Your task to perform on an android device: What's the news in Sri Lanka? Image 0: 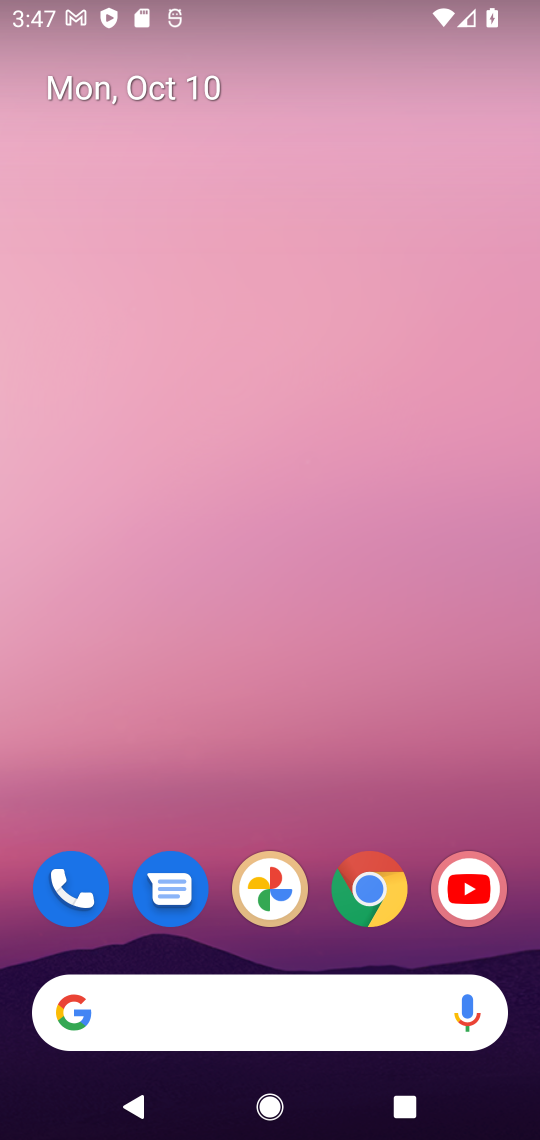
Step 0: click (370, 887)
Your task to perform on an android device: What's the news in Sri Lanka? Image 1: 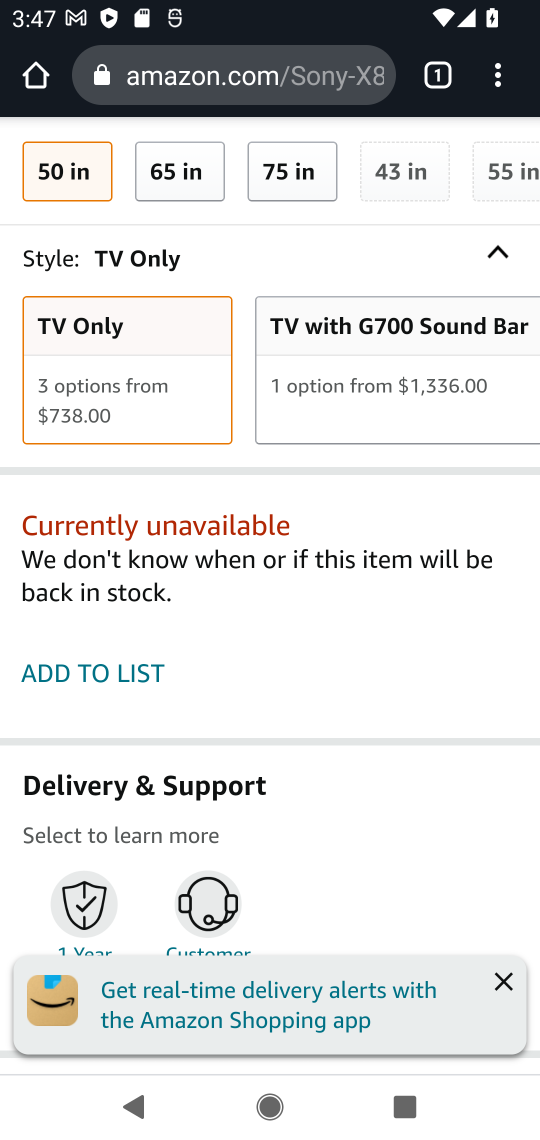
Step 1: click (270, 53)
Your task to perform on an android device: What's the news in Sri Lanka? Image 2: 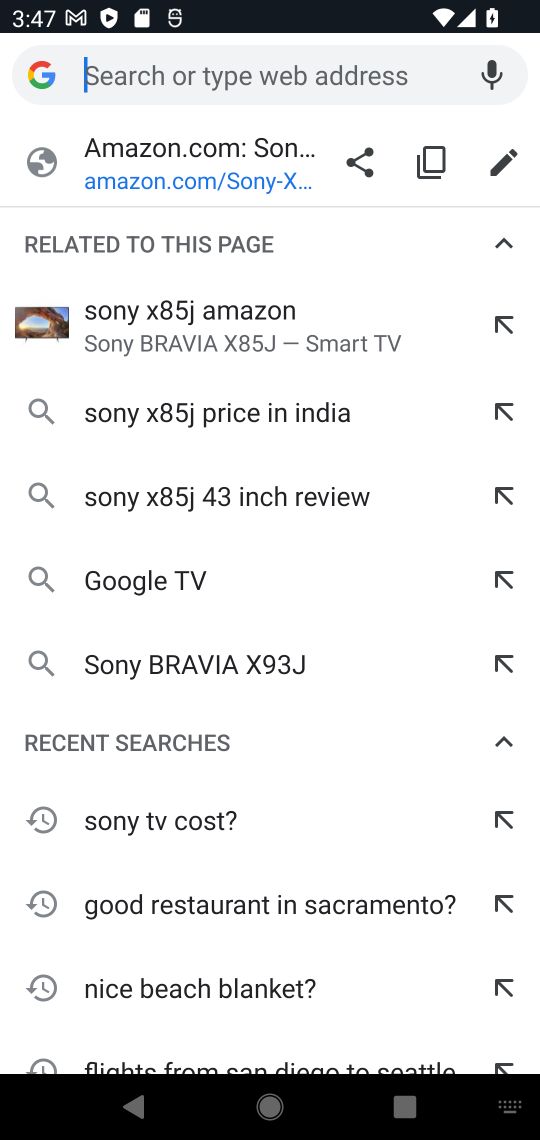
Step 2: type " news in Sri Lanka?"
Your task to perform on an android device: What's the news in Sri Lanka? Image 3: 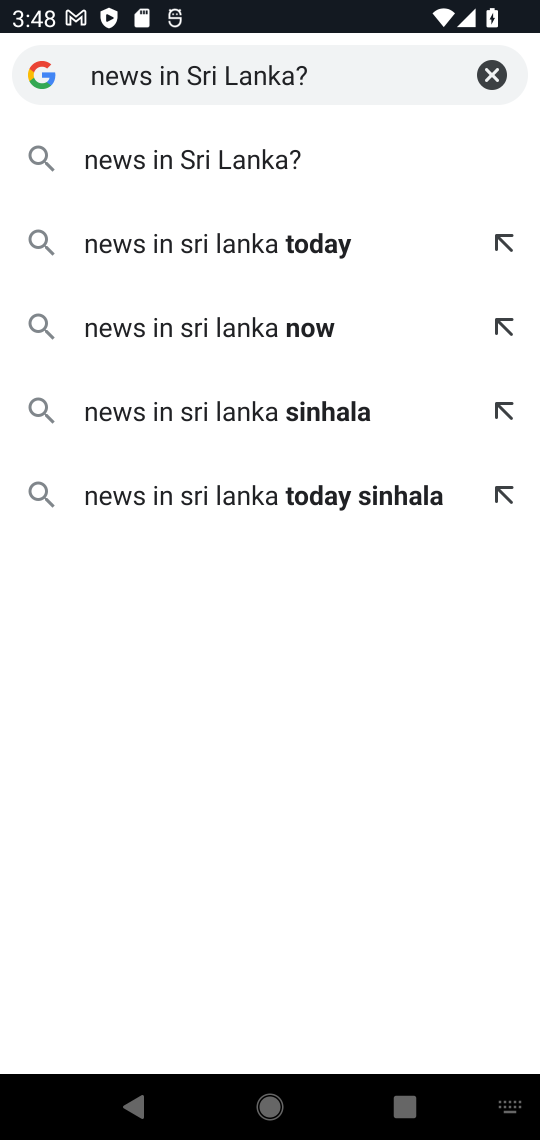
Step 3: click (144, 180)
Your task to perform on an android device: What's the news in Sri Lanka? Image 4: 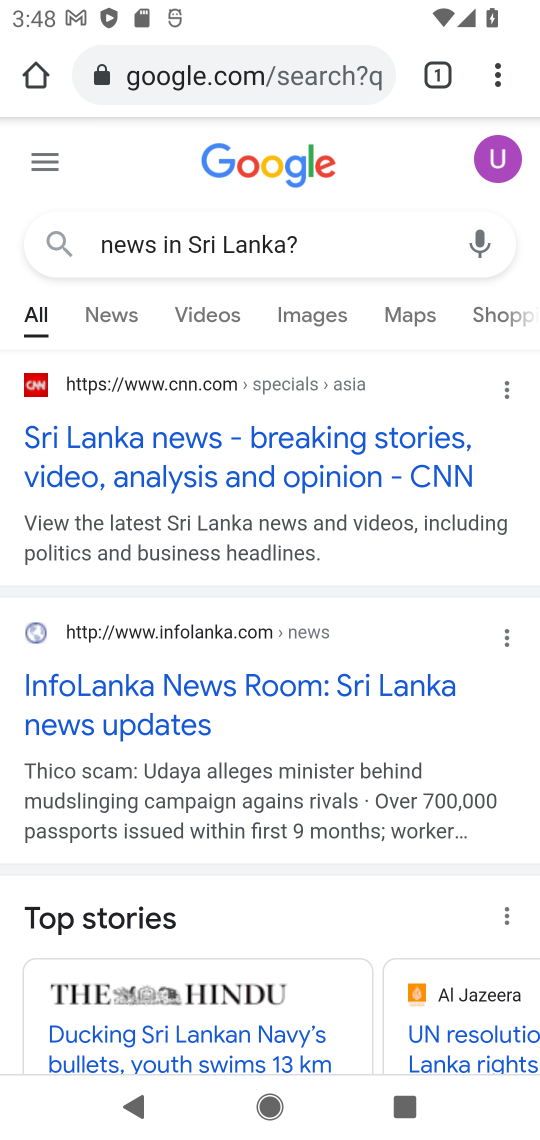
Step 4: click (162, 447)
Your task to perform on an android device: What's the news in Sri Lanka? Image 5: 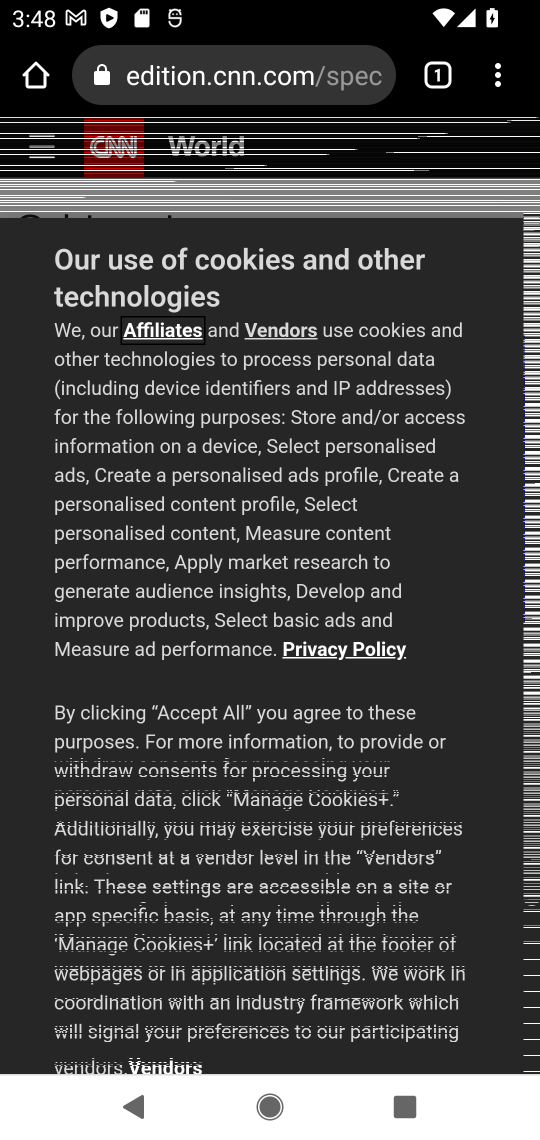
Step 5: drag from (350, 939) to (385, 221)
Your task to perform on an android device: What's the news in Sri Lanka? Image 6: 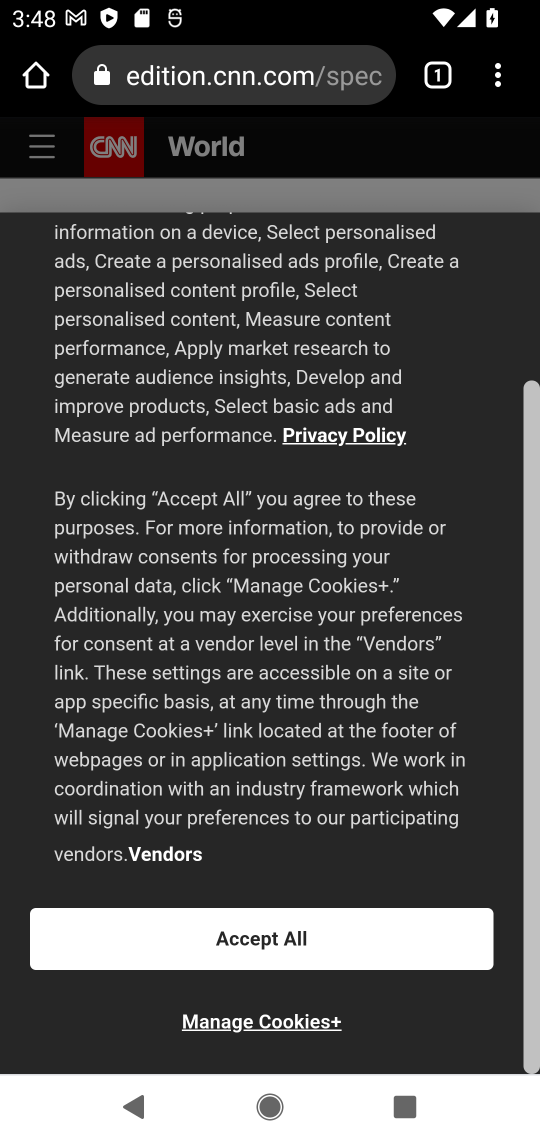
Step 6: click (249, 938)
Your task to perform on an android device: What's the news in Sri Lanka? Image 7: 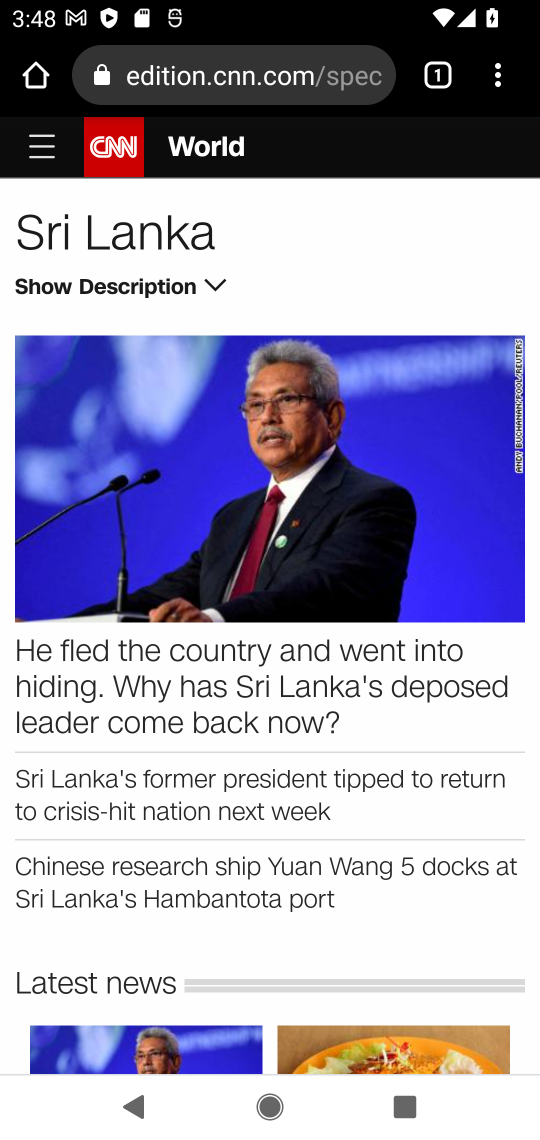
Step 7: drag from (343, 933) to (374, 248)
Your task to perform on an android device: What's the news in Sri Lanka? Image 8: 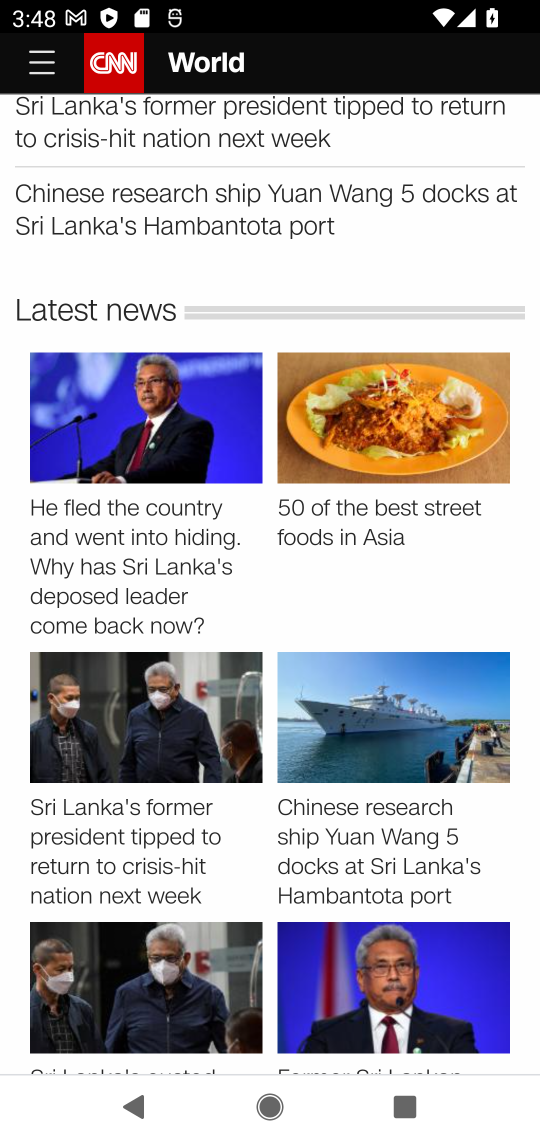
Step 8: drag from (408, 307) to (444, 796)
Your task to perform on an android device: What's the news in Sri Lanka? Image 9: 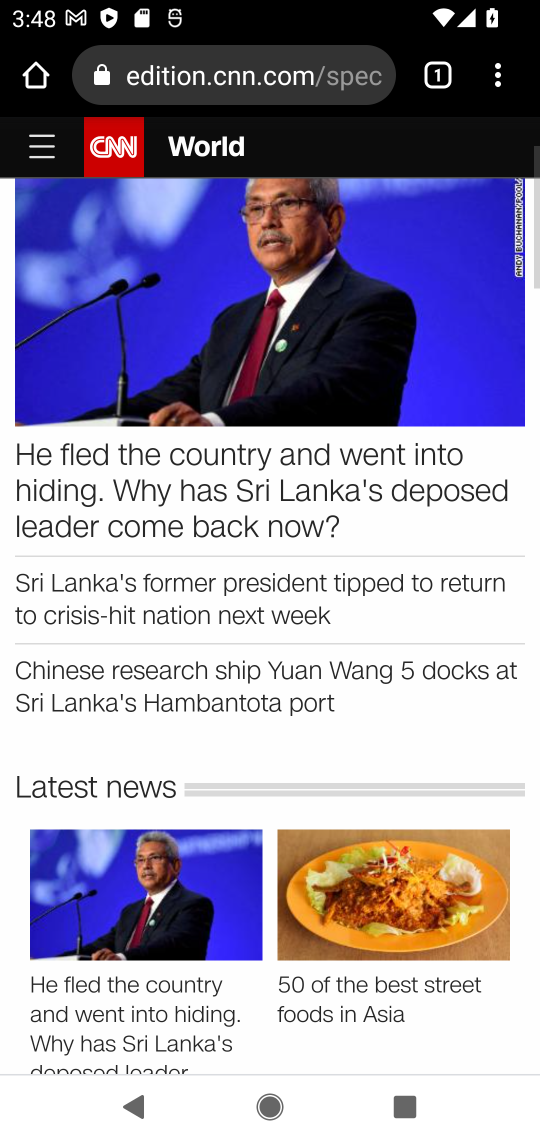
Step 9: drag from (425, 267) to (412, 836)
Your task to perform on an android device: What's the news in Sri Lanka? Image 10: 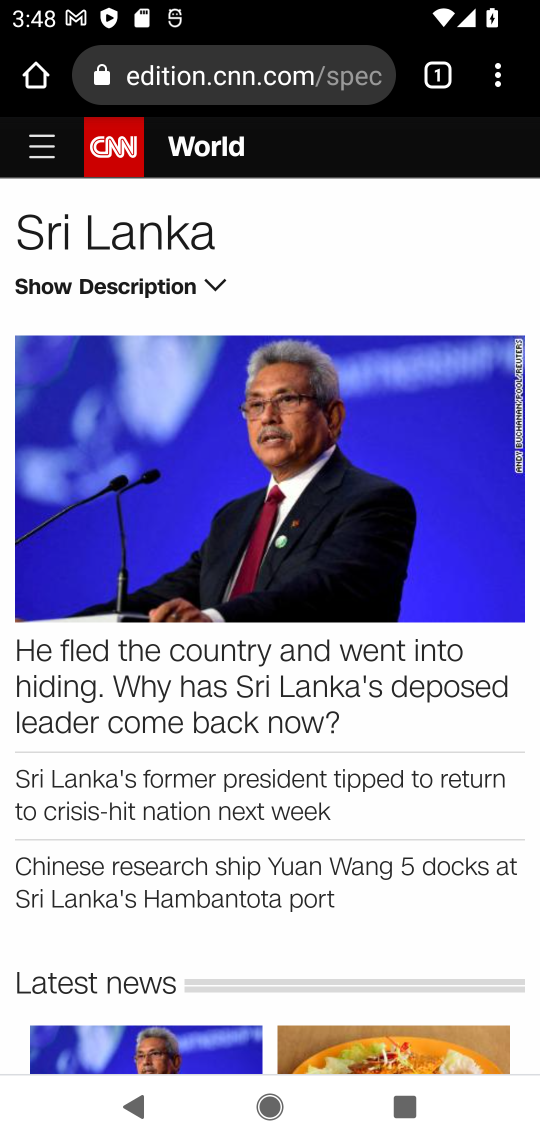
Step 10: click (268, 666)
Your task to perform on an android device: What's the news in Sri Lanka? Image 11: 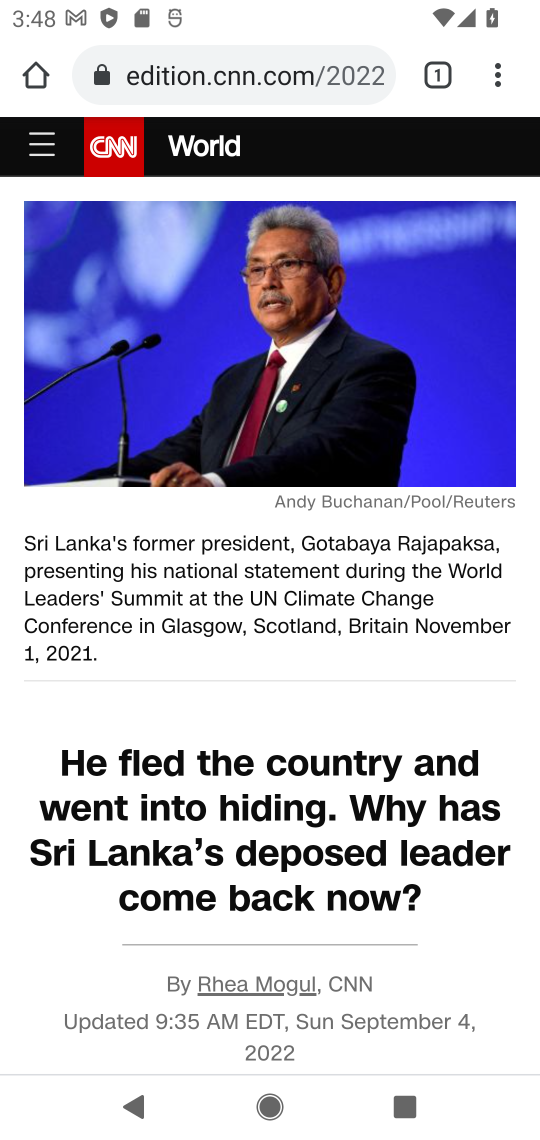
Step 11: task complete